Your task to perform on an android device: turn off sleep mode Image 0: 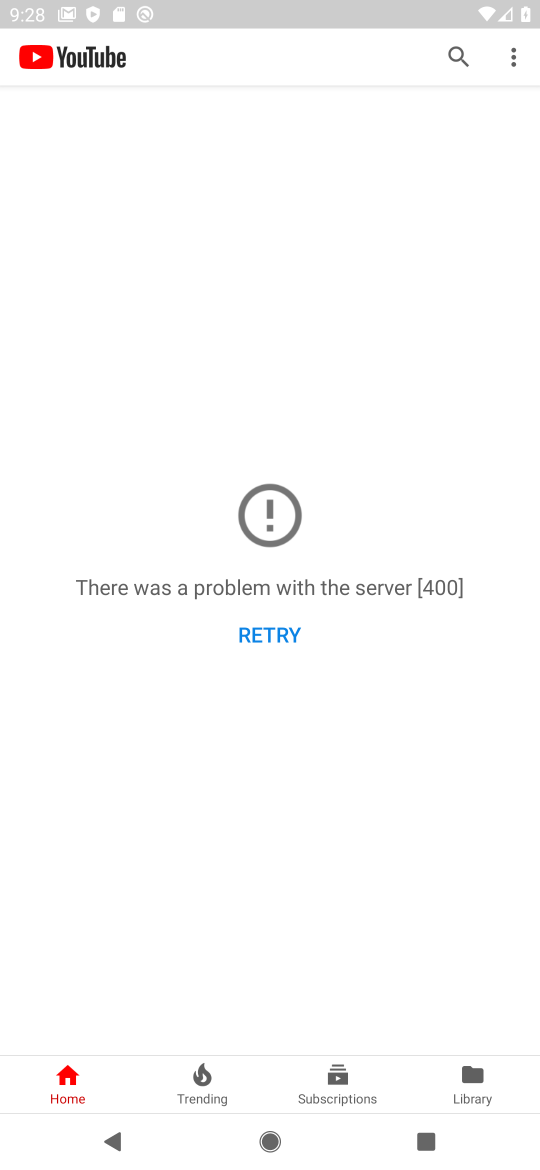
Step 0: press home button
Your task to perform on an android device: turn off sleep mode Image 1: 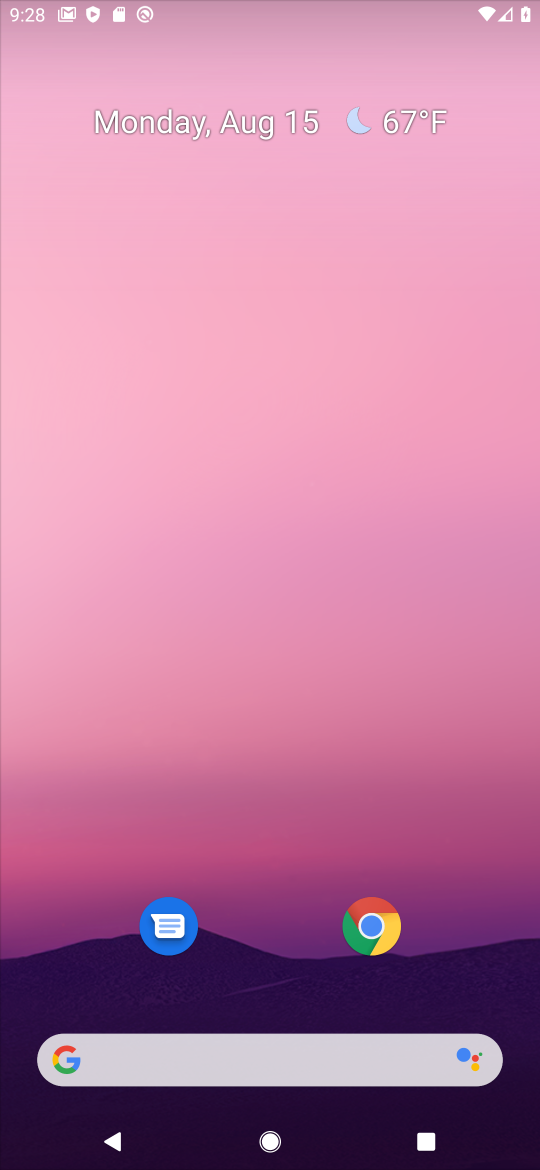
Step 1: drag from (327, 647) to (304, 69)
Your task to perform on an android device: turn off sleep mode Image 2: 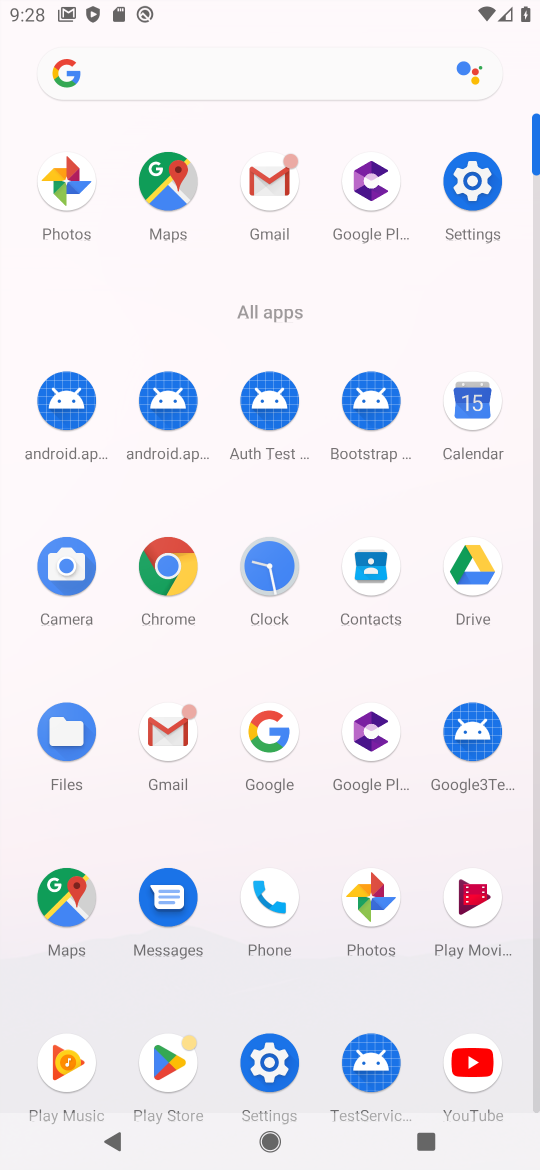
Step 2: click (474, 165)
Your task to perform on an android device: turn off sleep mode Image 3: 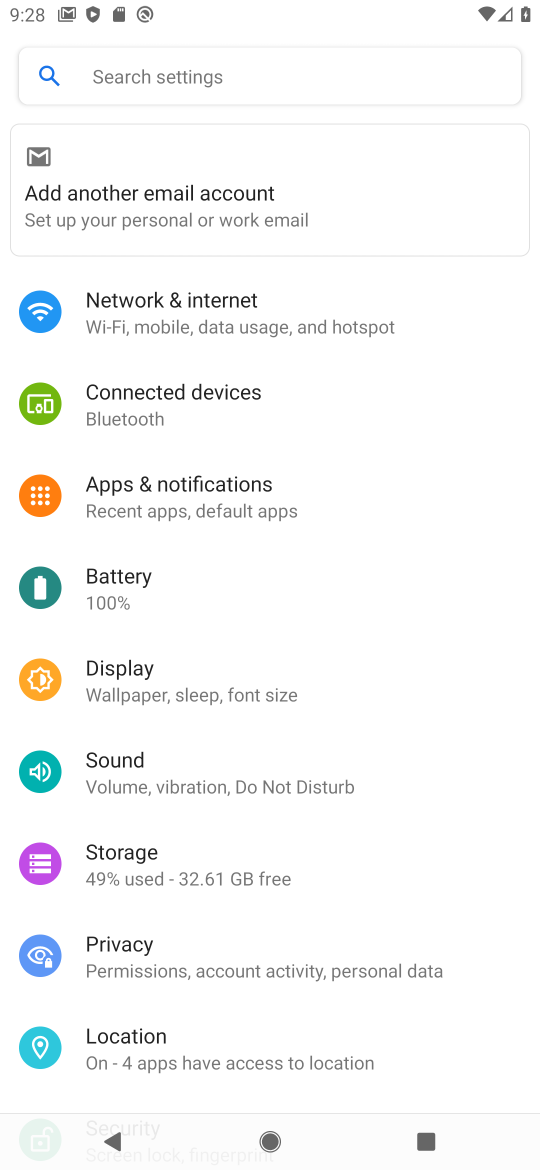
Step 3: click (54, 670)
Your task to perform on an android device: turn off sleep mode Image 4: 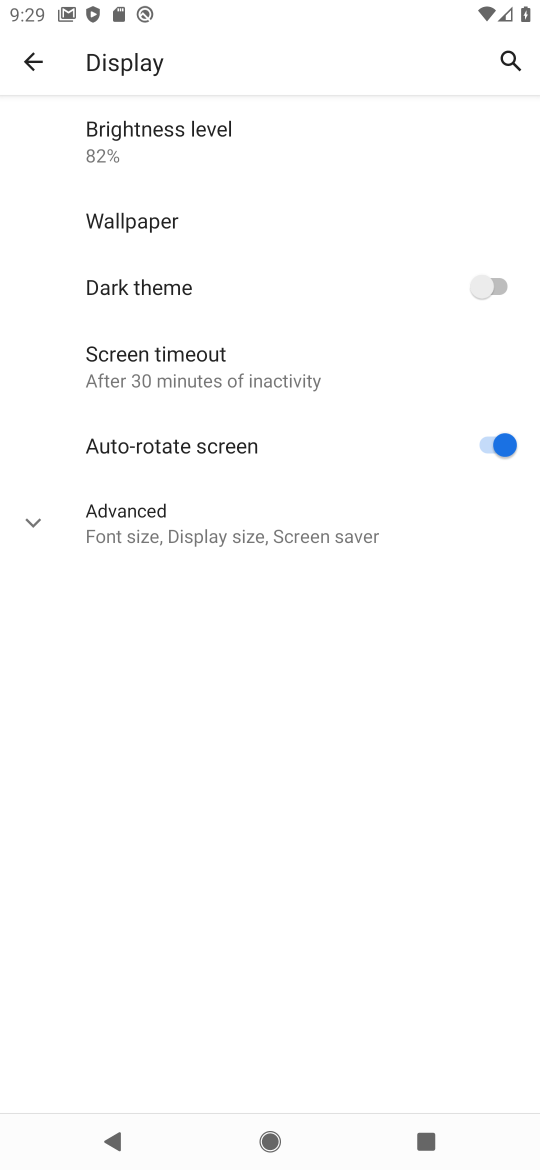
Step 4: click (131, 523)
Your task to perform on an android device: turn off sleep mode Image 5: 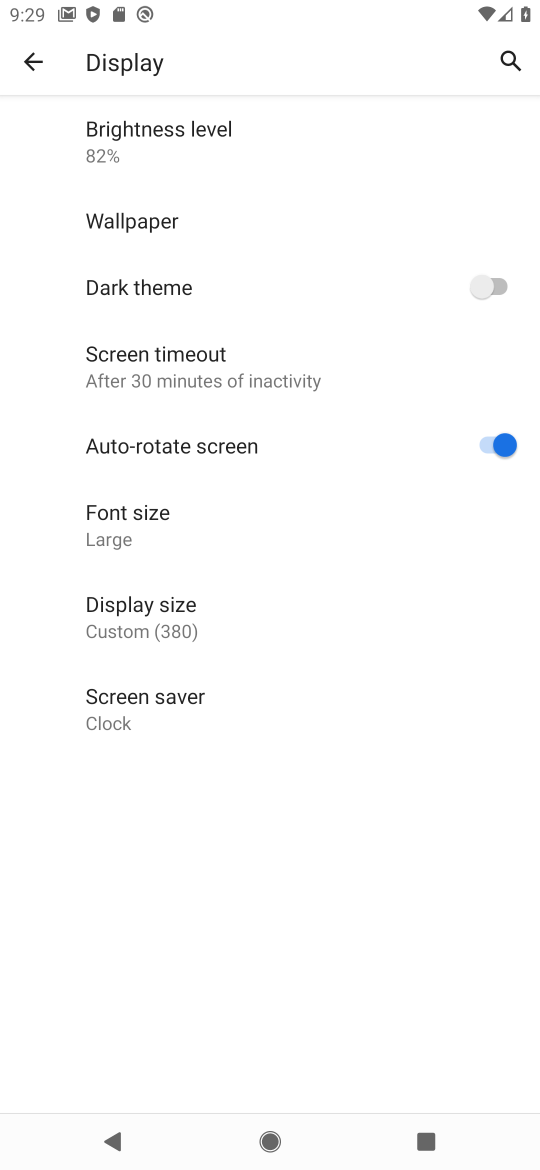
Step 5: task complete